Your task to perform on an android device: Go to Amazon Image 0: 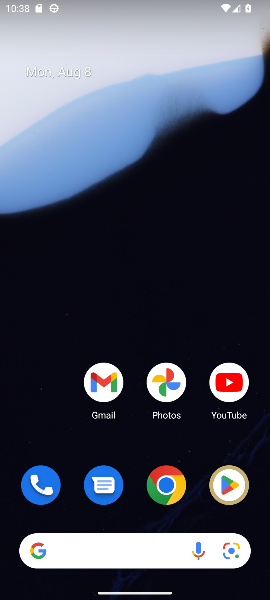
Step 0: drag from (132, 443) to (80, 32)
Your task to perform on an android device: Go to Amazon Image 1: 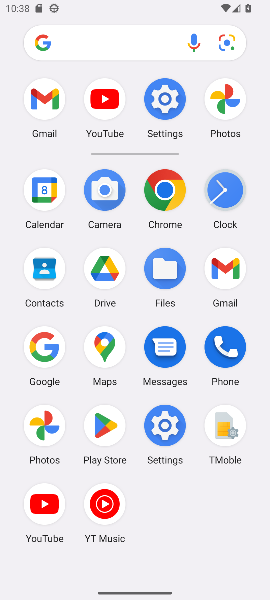
Step 1: click (162, 191)
Your task to perform on an android device: Go to Amazon Image 2: 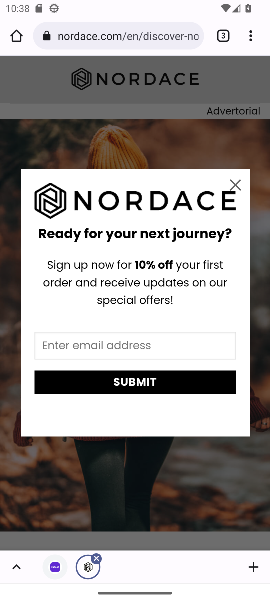
Step 2: click (133, 41)
Your task to perform on an android device: Go to Amazon Image 3: 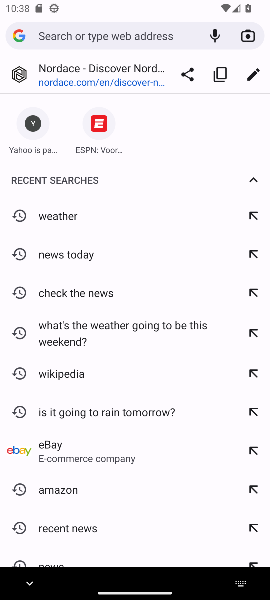
Step 3: type " Amazon"
Your task to perform on an android device: Go to Amazon Image 4: 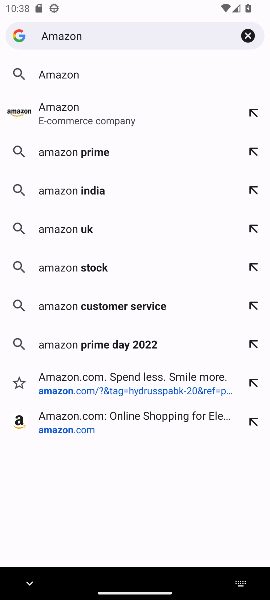
Step 4: click (65, 78)
Your task to perform on an android device: Go to Amazon Image 5: 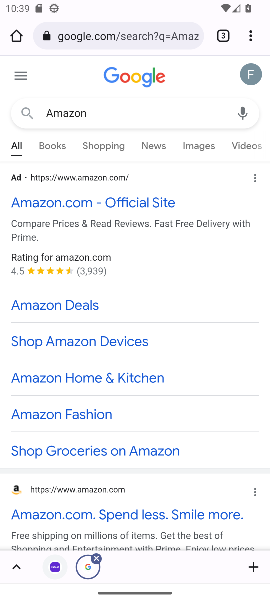
Step 5: click (92, 203)
Your task to perform on an android device: Go to Amazon Image 6: 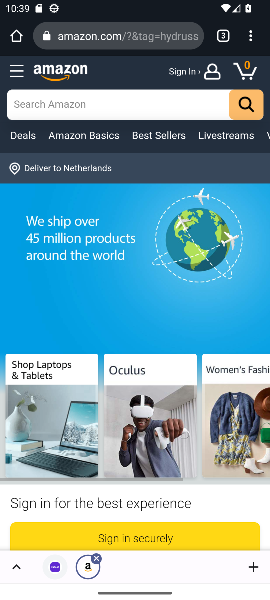
Step 6: task complete